Your task to perform on an android device: remove spam from my inbox in the gmail app Image 0: 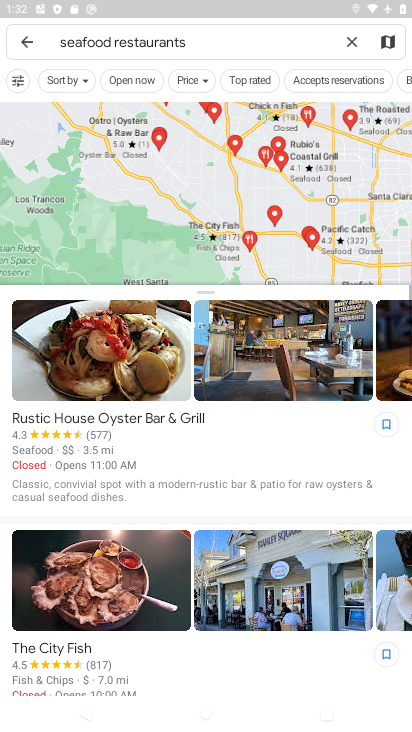
Step 0: press home button
Your task to perform on an android device: remove spam from my inbox in the gmail app Image 1: 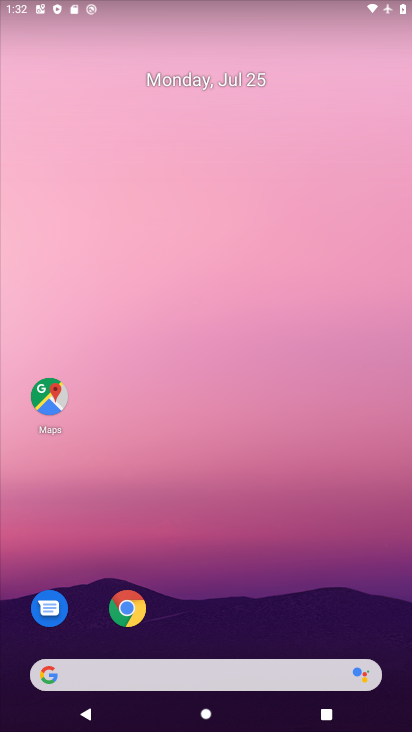
Step 1: drag from (191, 461) to (219, 198)
Your task to perform on an android device: remove spam from my inbox in the gmail app Image 2: 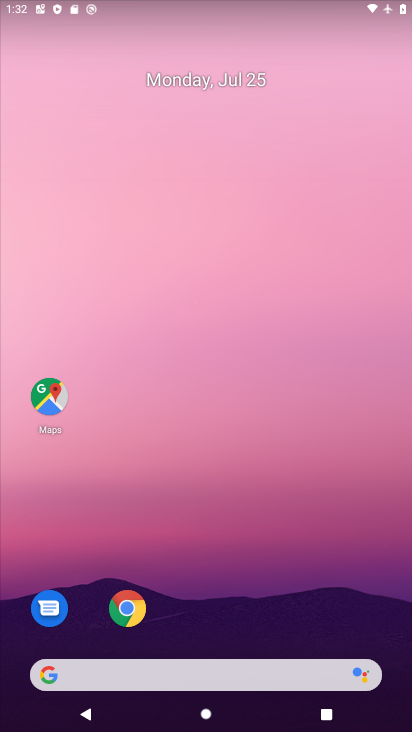
Step 2: drag from (205, 569) to (254, 101)
Your task to perform on an android device: remove spam from my inbox in the gmail app Image 3: 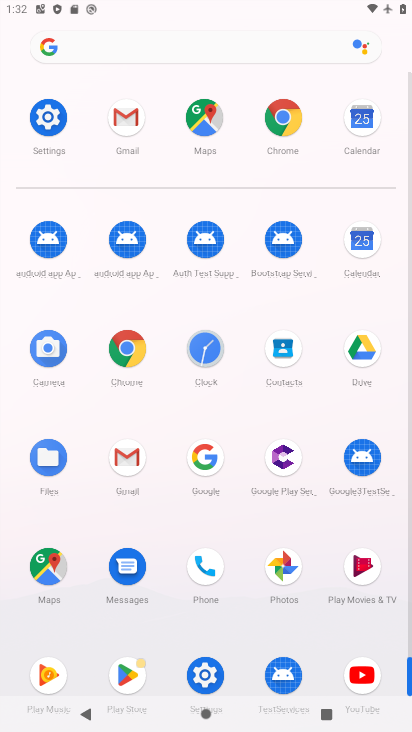
Step 3: click (129, 465)
Your task to perform on an android device: remove spam from my inbox in the gmail app Image 4: 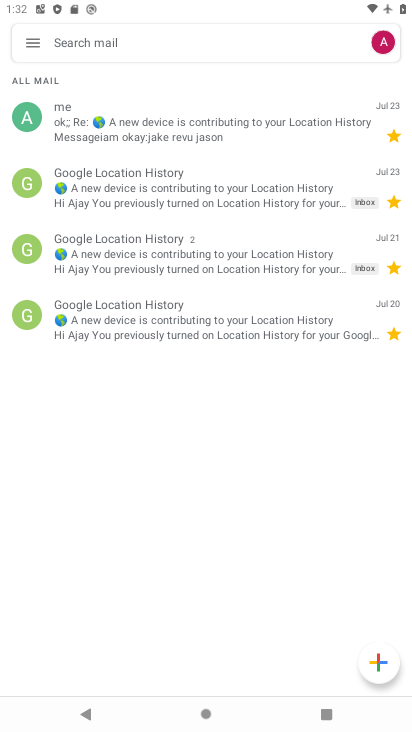
Step 4: click (31, 48)
Your task to perform on an android device: remove spam from my inbox in the gmail app Image 5: 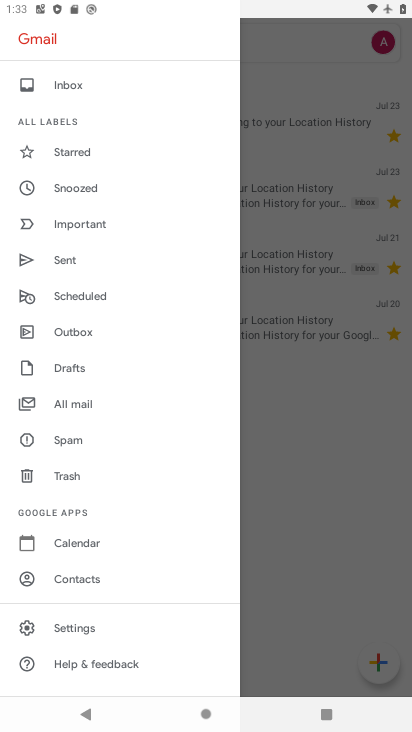
Step 5: click (58, 447)
Your task to perform on an android device: remove spam from my inbox in the gmail app Image 6: 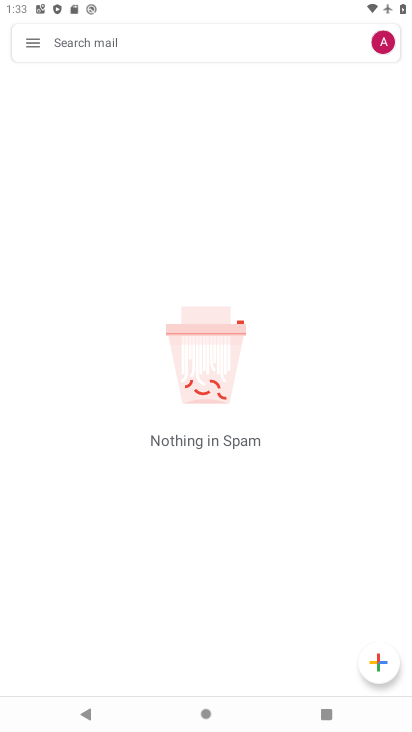
Step 6: task complete